Your task to perform on an android device: Search for usb-a to usb-b on bestbuy, select the first entry, and add it to the cart. Image 0: 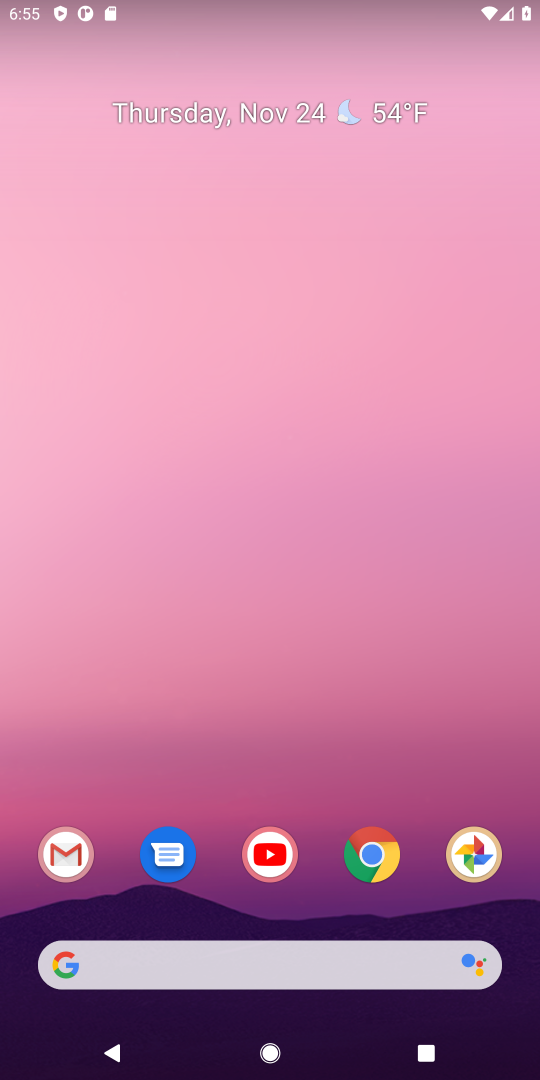
Step 0: click (371, 867)
Your task to perform on an android device: Search for usb-a to usb-b on bestbuy, select the first entry, and add it to the cart. Image 1: 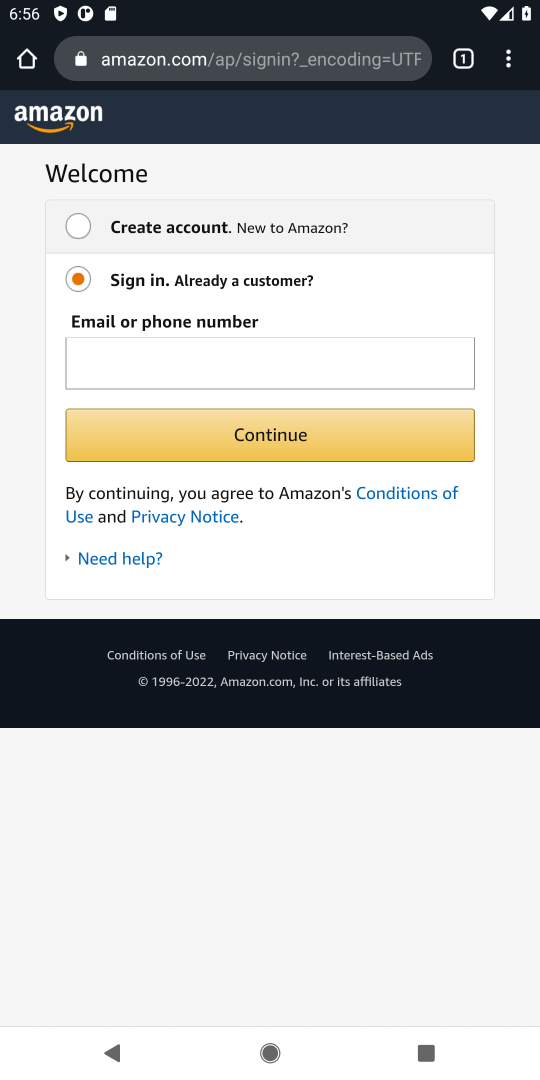
Step 1: click (204, 70)
Your task to perform on an android device: Search for usb-a to usb-b on bestbuy, select the first entry, and add it to the cart. Image 2: 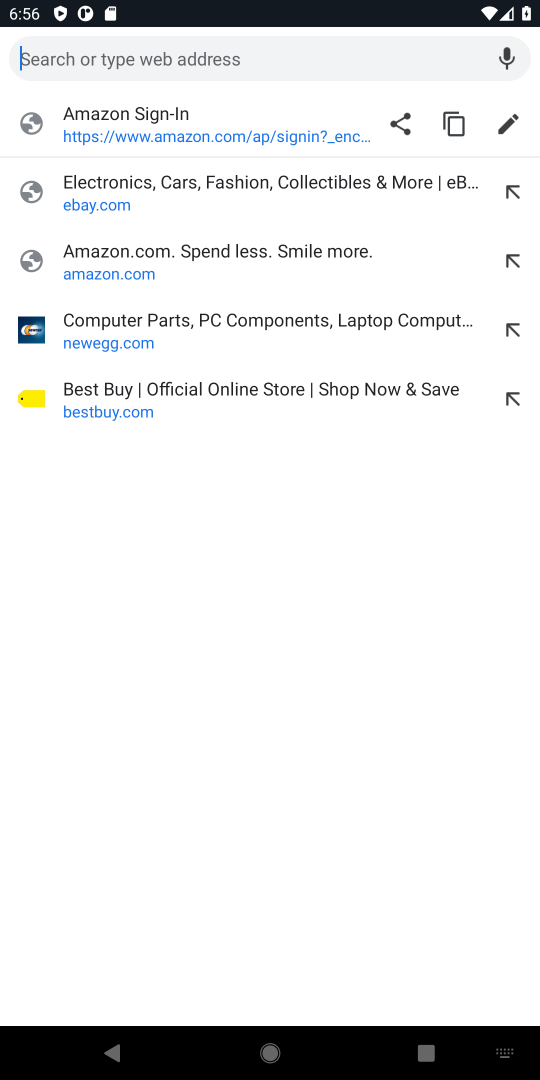
Step 2: click (88, 406)
Your task to perform on an android device: Search for usb-a to usb-b on bestbuy, select the first entry, and add it to the cart. Image 3: 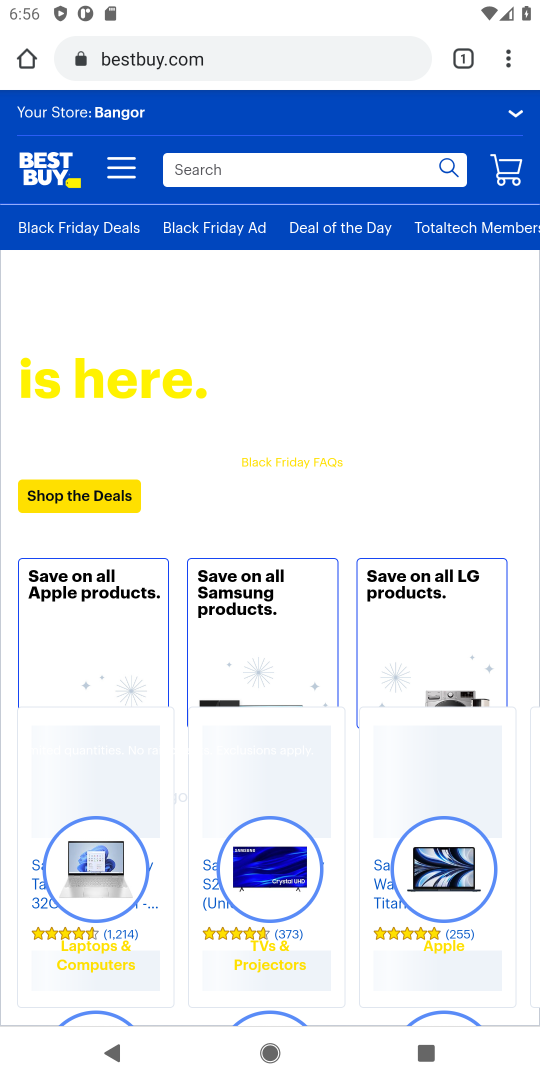
Step 3: click (206, 176)
Your task to perform on an android device: Search for usb-a to usb-b on bestbuy, select the first entry, and add it to the cart. Image 4: 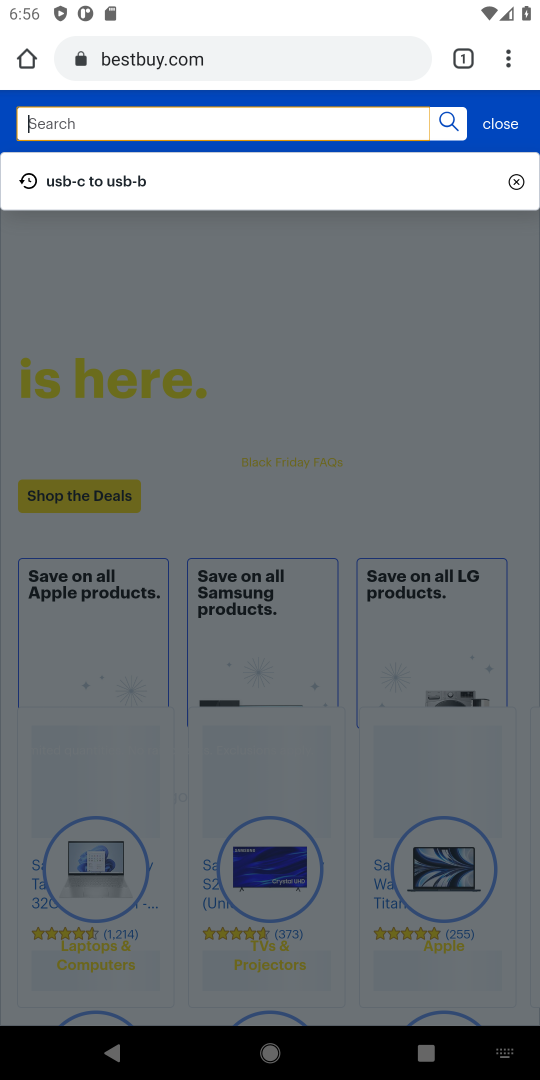
Step 4: type "usb-a to usb-b"
Your task to perform on an android device: Search for usb-a to usb-b on bestbuy, select the first entry, and add it to the cart. Image 5: 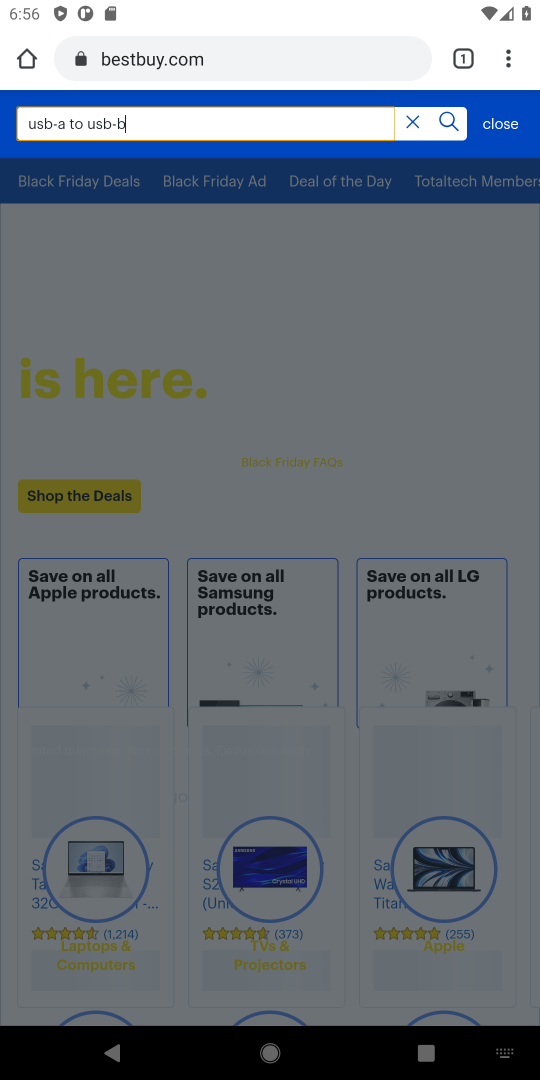
Step 5: click (444, 121)
Your task to perform on an android device: Search for usb-a to usb-b on bestbuy, select the first entry, and add it to the cart. Image 6: 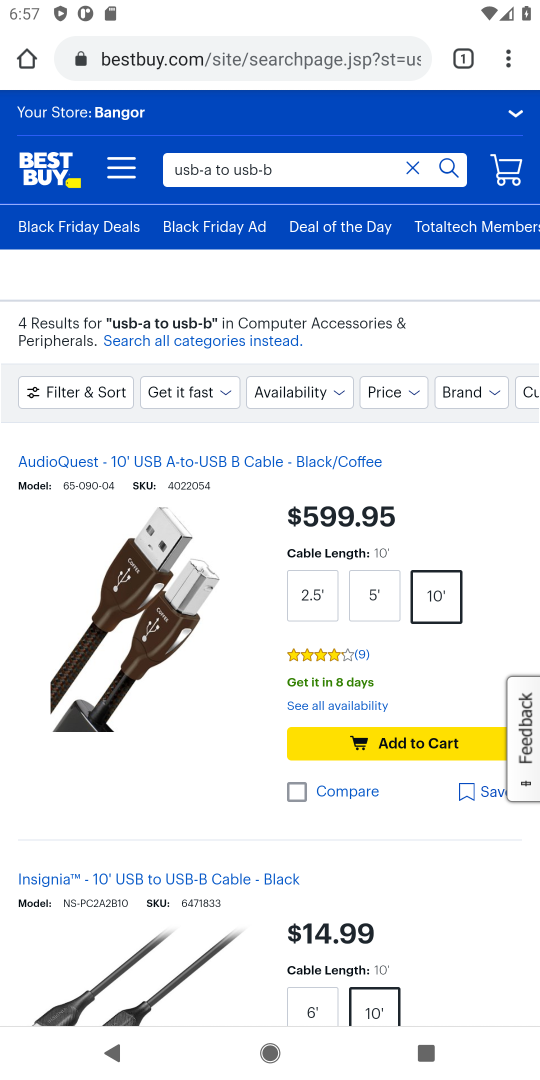
Step 6: click (416, 740)
Your task to perform on an android device: Search for usb-a to usb-b on bestbuy, select the first entry, and add it to the cart. Image 7: 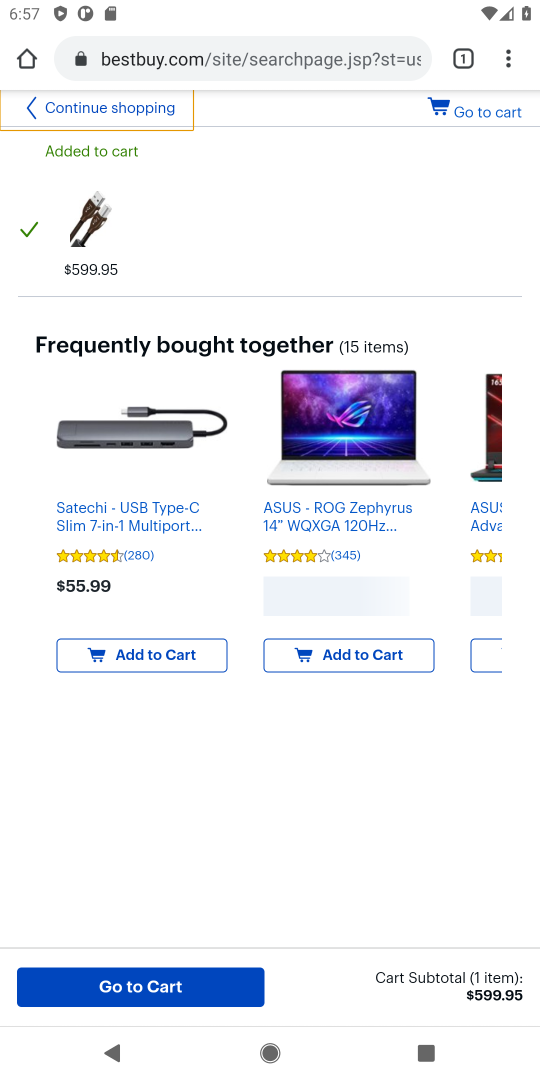
Step 7: task complete